Your task to perform on an android device: Go to sound settings Image 0: 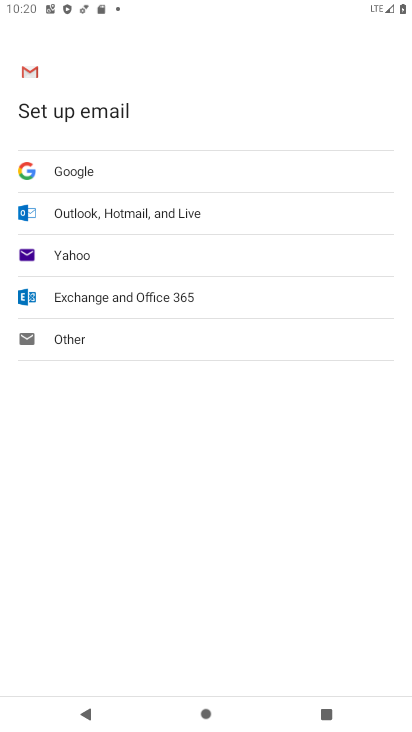
Step 0: press home button
Your task to perform on an android device: Go to sound settings Image 1: 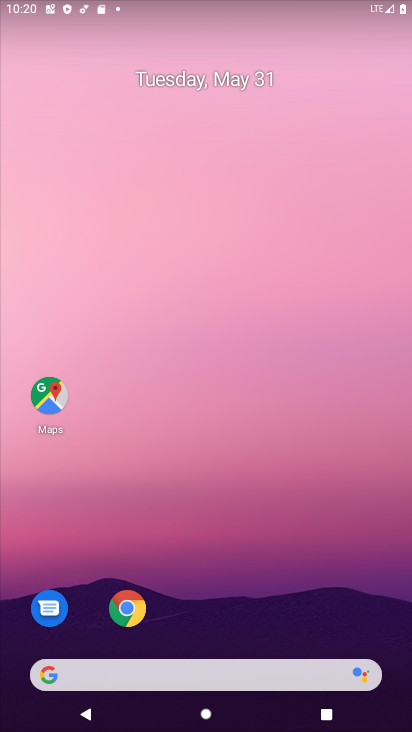
Step 1: drag from (260, 633) to (402, 213)
Your task to perform on an android device: Go to sound settings Image 2: 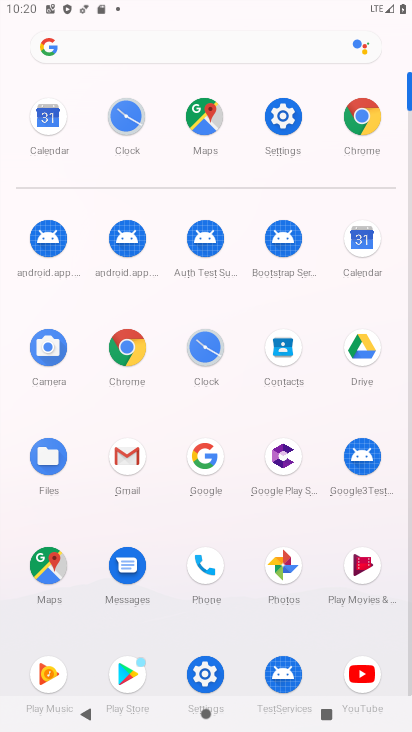
Step 2: click (273, 142)
Your task to perform on an android device: Go to sound settings Image 3: 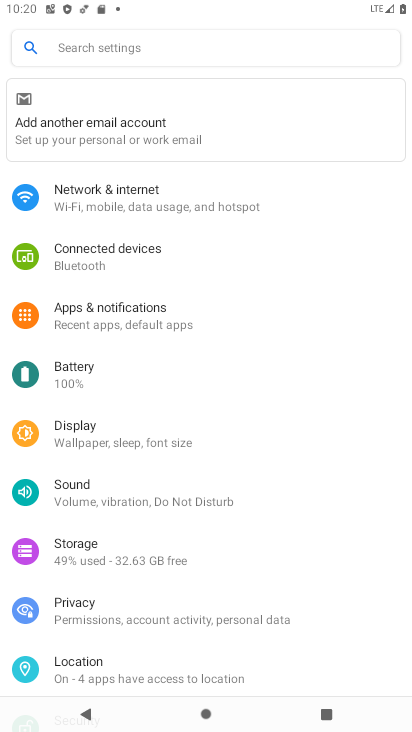
Step 3: click (80, 492)
Your task to perform on an android device: Go to sound settings Image 4: 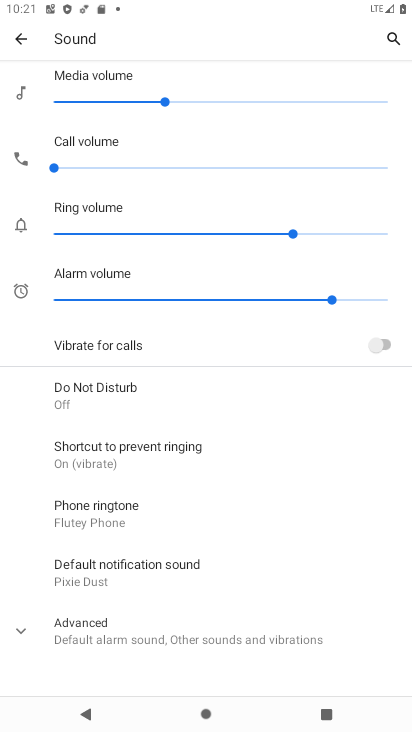
Step 4: task complete